Your task to perform on an android device: manage bookmarks in the chrome app Image 0: 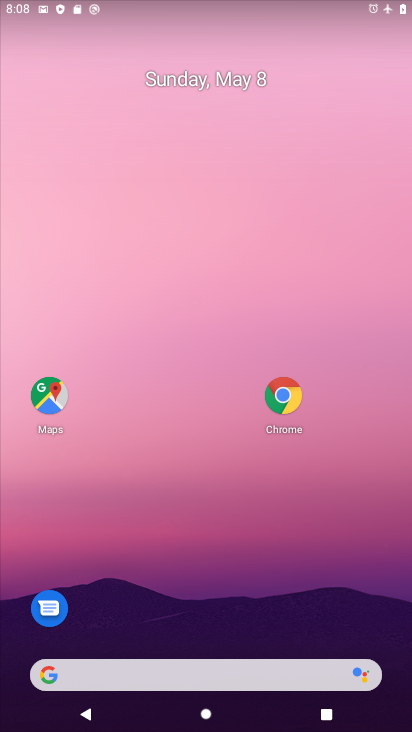
Step 0: click (283, 399)
Your task to perform on an android device: manage bookmarks in the chrome app Image 1: 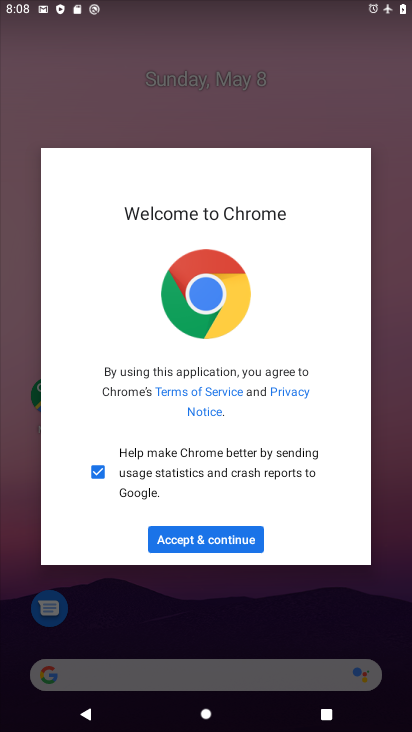
Step 1: click (210, 537)
Your task to perform on an android device: manage bookmarks in the chrome app Image 2: 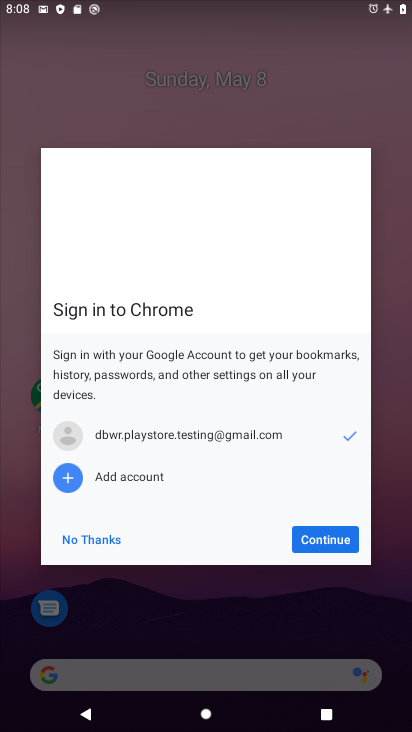
Step 2: click (312, 545)
Your task to perform on an android device: manage bookmarks in the chrome app Image 3: 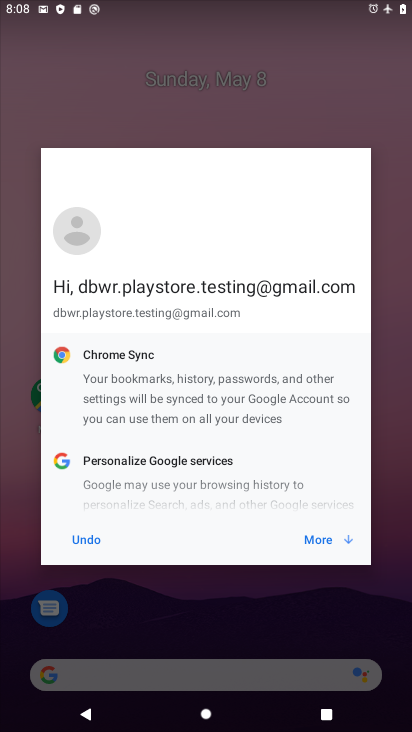
Step 3: click (315, 542)
Your task to perform on an android device: manage bookmarks in the chrome app Image 4: 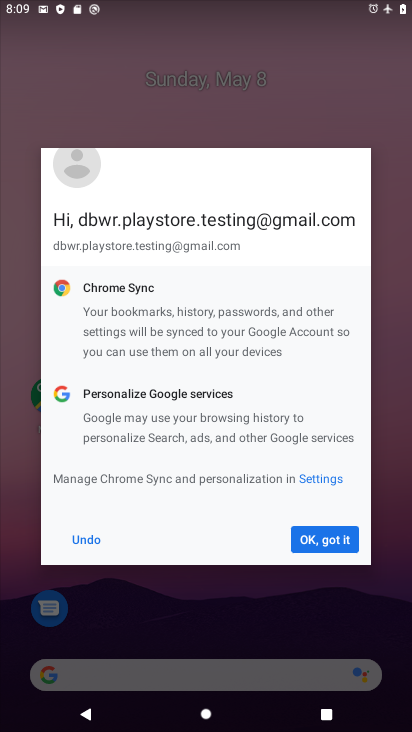
Step 4: click (315, 543)
Your task to perform on an android device: manage bookmarks in the chrome app Image 5: 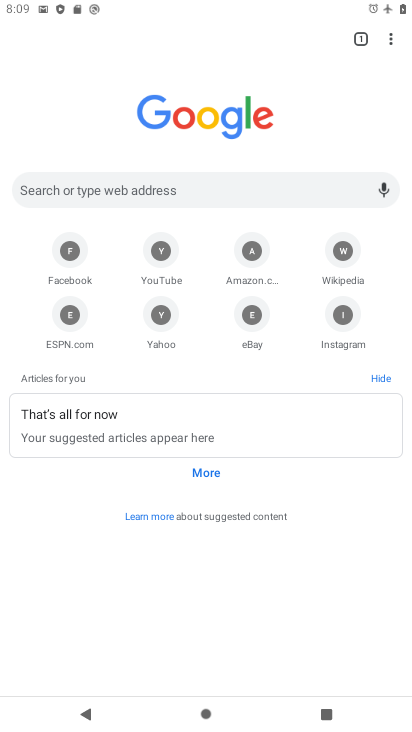
Step 5: drag from (388, 35) to (283, 147)
Your task to perform on an android device: manage bookmarks in the chrome app Image 6: 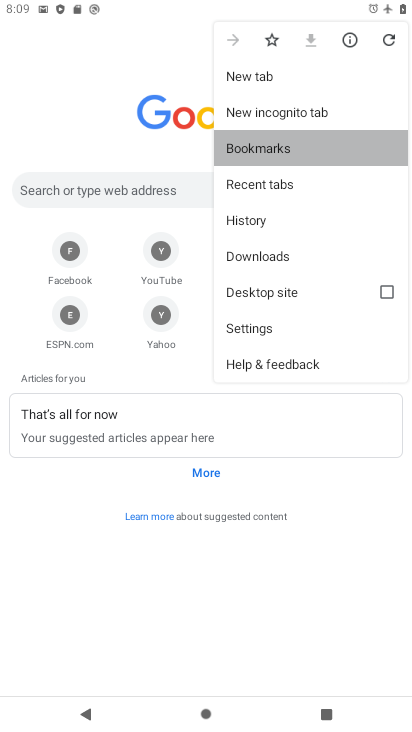
Step 6: click (283, 147)
Your task to perform on an android device: manage bookmarks in the chrome app Image 7: 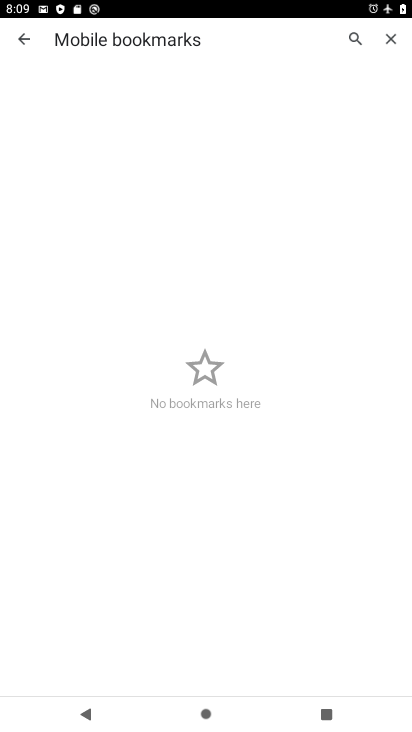
Step 7: task complete